Your task to perform on an android device: Show me popular videos on Youtube Image 0: 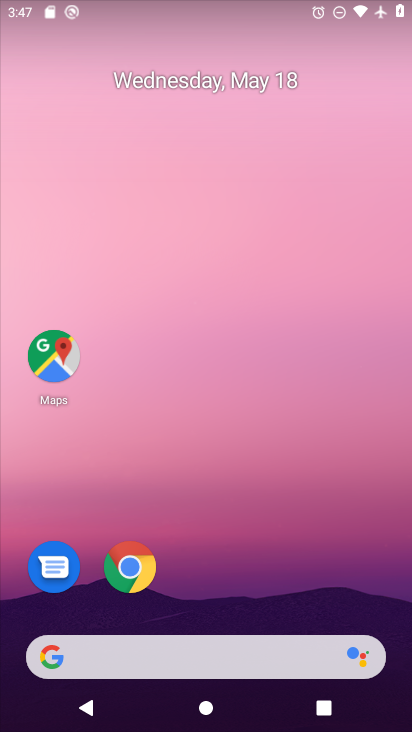
Step 0: drag from (236, 603) to (281, 230)
Your task to perform on an android device: Show me popular videos on Youtube Image 1: 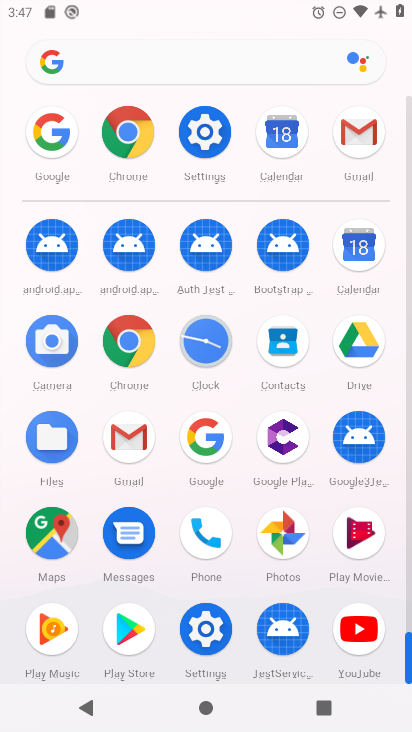
Step 1: drag from (304, 643) to (334, 576)
Your task to perform on an android device: Show me popular videos on Youtube Image 2: 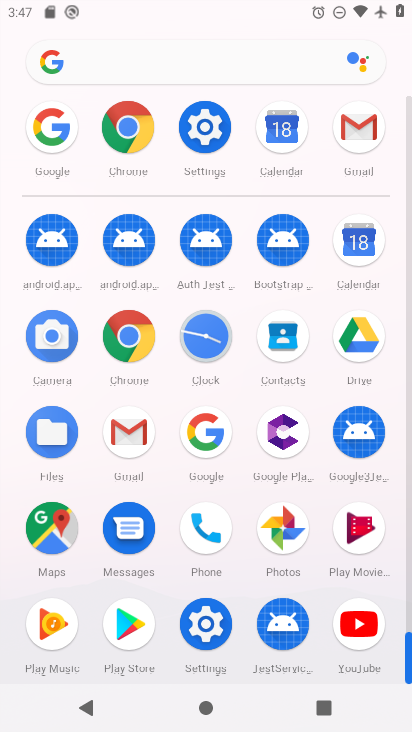
Step 2: click (351, 631)
Your task to perform on an android device: Show me popular videos on Youtube Image 3: 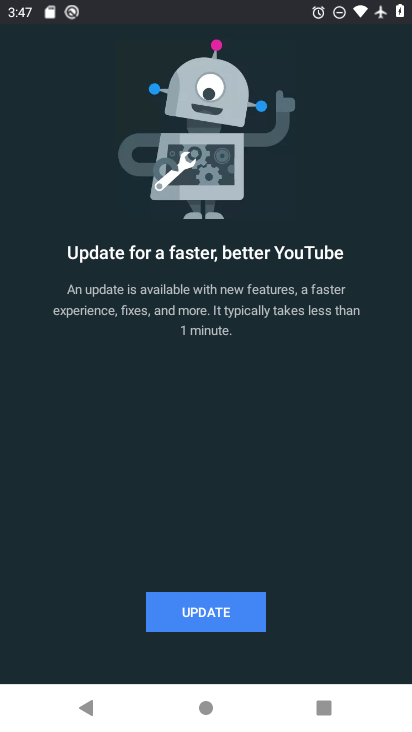
Step 3: task complete